Your task to perform on an android device: change keyboard looks Image 0: 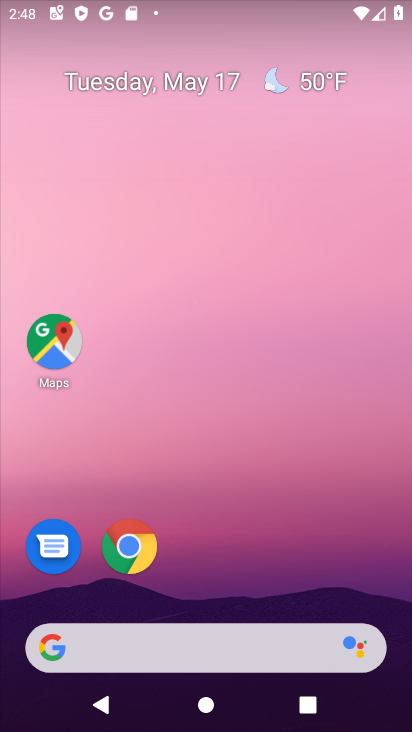
Step 0: drag from (222, 582) to (355, 63)
Your task to perform on an android device: change keyboard looks Image 1: 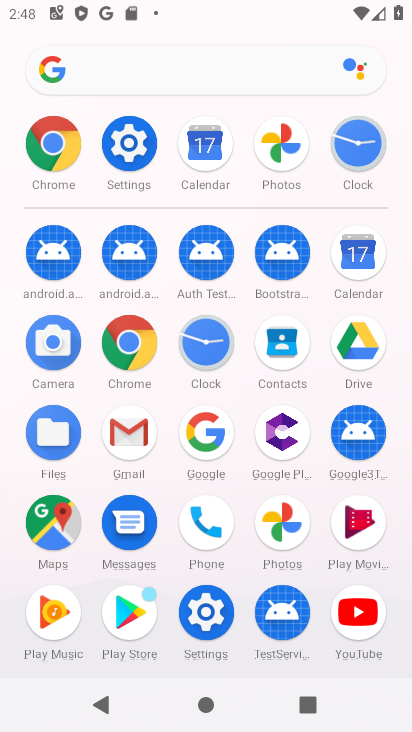
Step 1: click (209, 608)
Your task to perform on an android device: change keyboard looks Image 2: 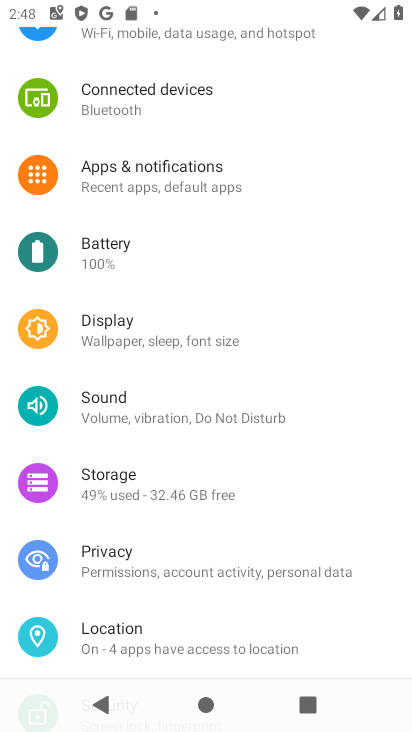
Step 2: drag from (160, 497) to (225, 180)
Your task to perform on an android device: change keyboard looks Image 3: 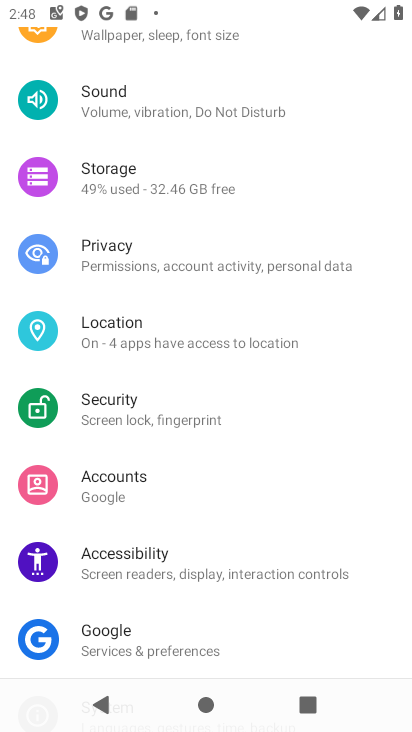
Step 3: drag from (182, 554) to (315, 133)
Your task to perform on an android device: change keyboard looks Image 4: 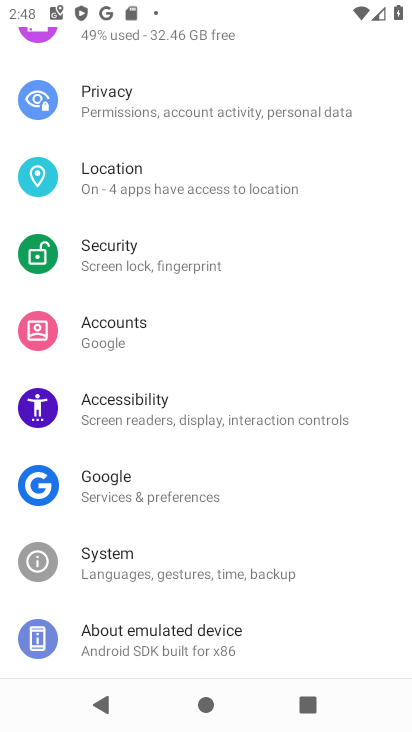
Step 4: click (161, 571)
Your task to perform on an android device: change keyboard looks Image 5: 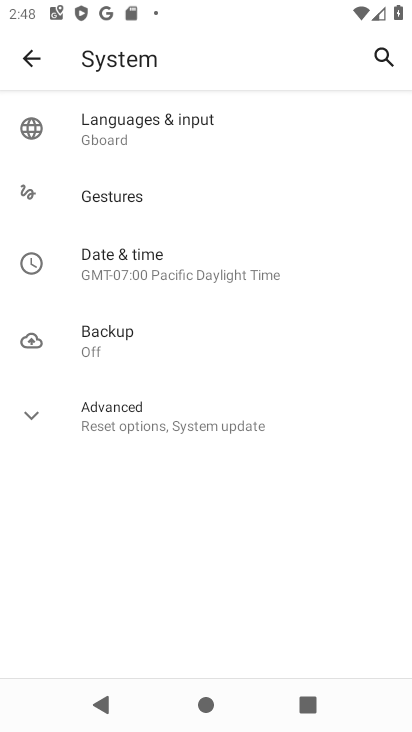
Step 5: click (134, 136)
Your task to perform on an android device: change keyboard looks Image 6: 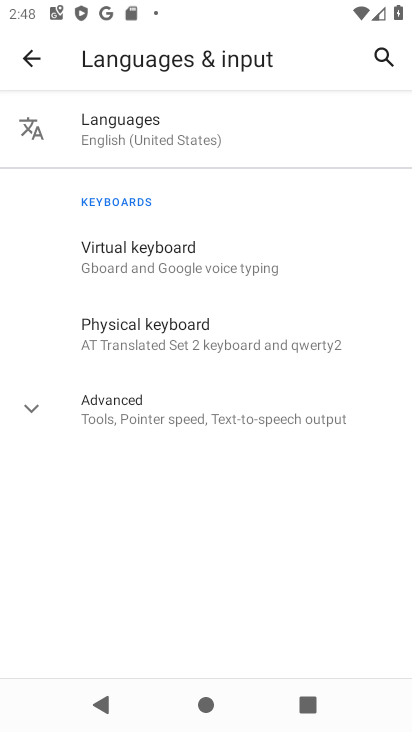
Step 6: click (169, 253)
Your task to perform on an android device: change keyboard looks Image 7: 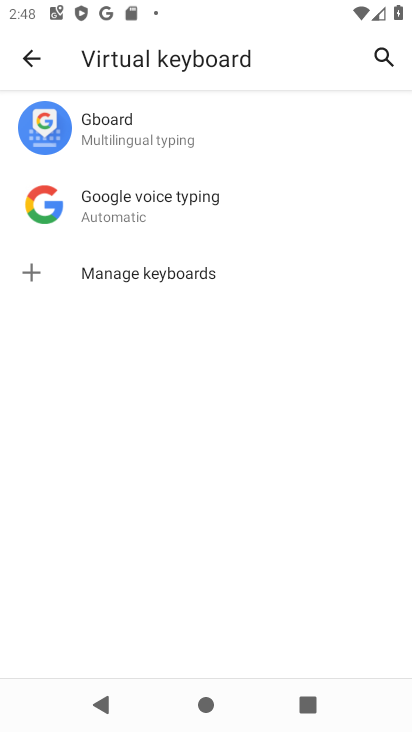
Step 7: click (162, 138)
Your task to perform on an android device: change keyboard looks Image 8: 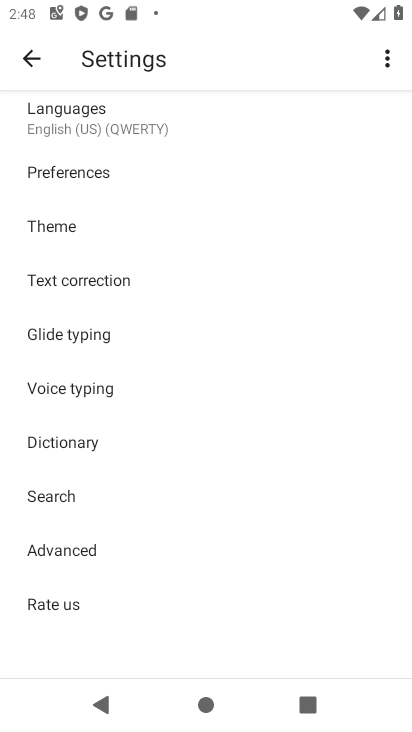
Step 8: click (73, 224)
Your task to perform on an android device: change keyboard looks Image 9: 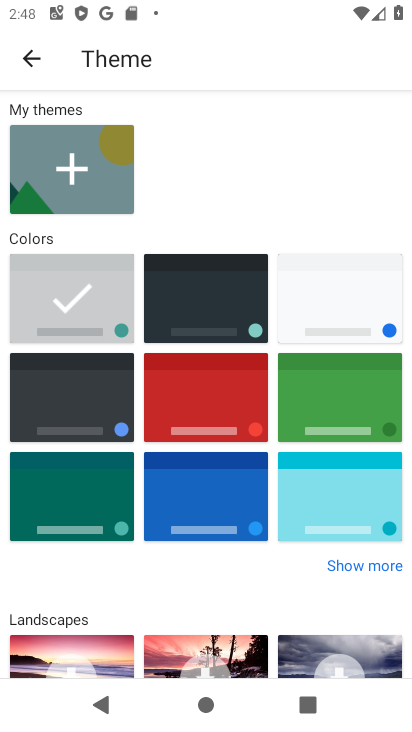
Step 9: click (194, 319)
Your task to perform on an android device: change keyboard looks Image 10: 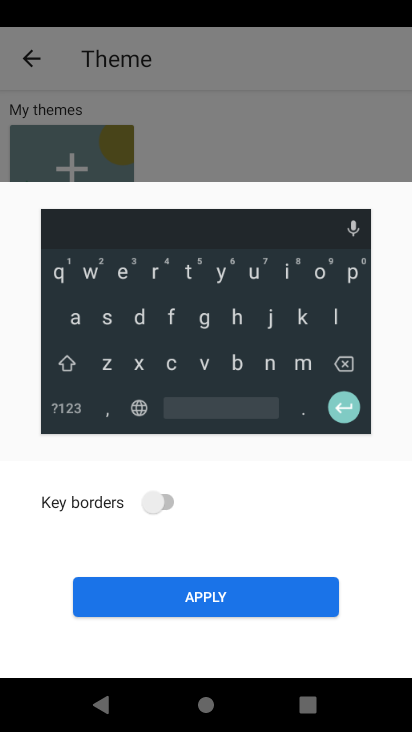
Step 10: click (196, 606)
Your task to perform on an android device: change keyboard looks Image 11: 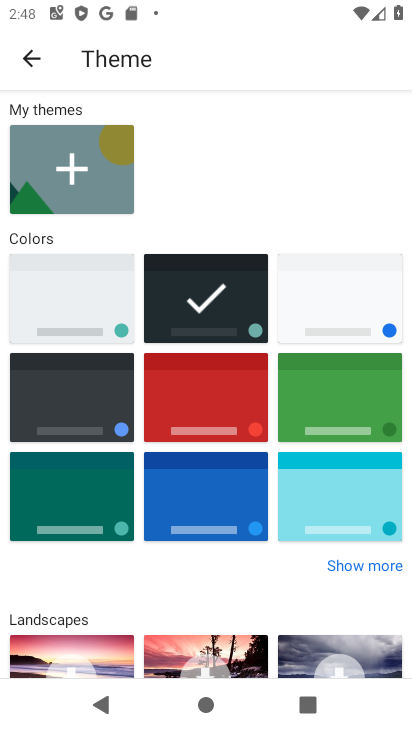
Step 11: task complete